Your task to perform on an android device: find snoozed emails in the gmail app Image 0: 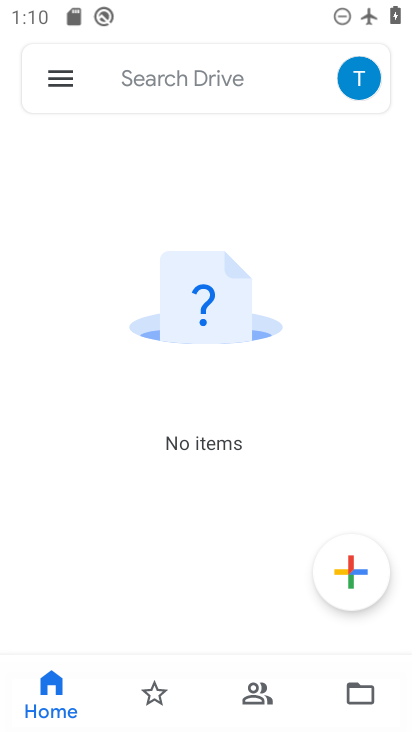
Step 0: press home button
Your task to perform on an android device: find snoozed emails in the gmail app Image 1: 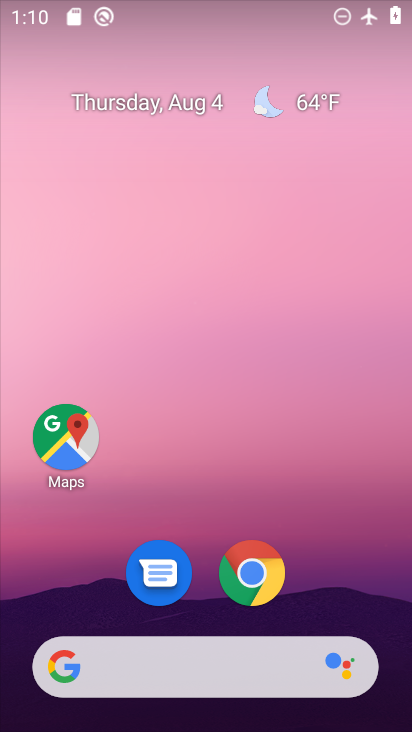
Step 1: drag from (348, 460) to (399, 108)
Your task to perform on an android device: find snoozed emails in the gmail app Image 2: 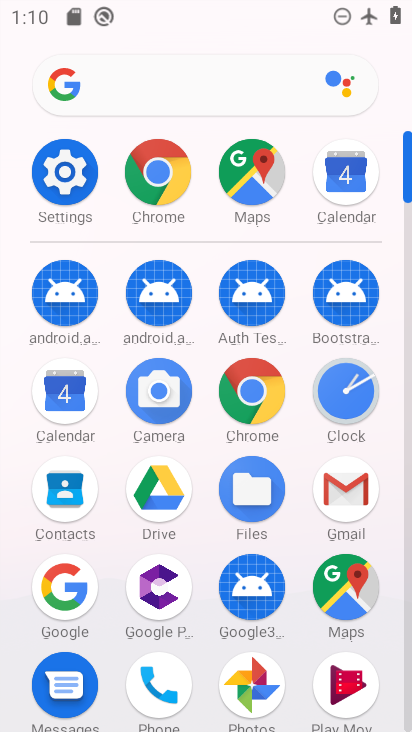
Step 2: click (337, 483)
Your task to perform on an android device: find snoozed emails in the gmail app Image 3: 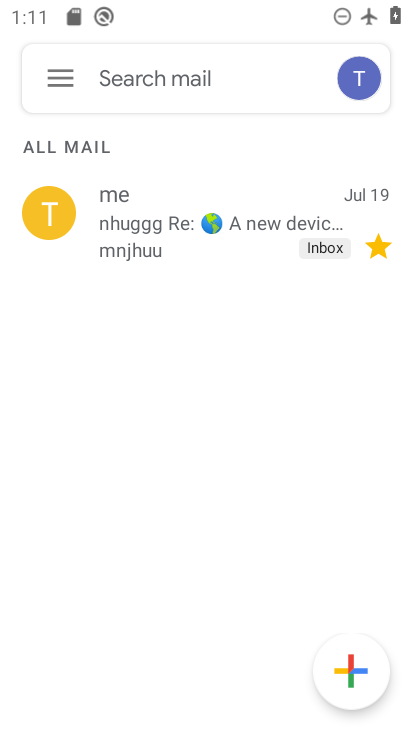
Step 3: click (63, 76)
Your task to perform on an android device: find snoozed emails in the gmail app Image 4: 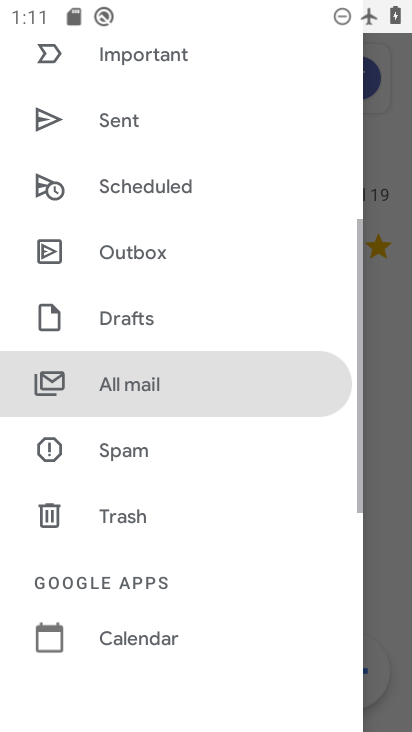
Step 4: drag from (150, 599) to (203, 194)
Your task to perform on an android device: find snoozed emails in the gmail app Image 5: 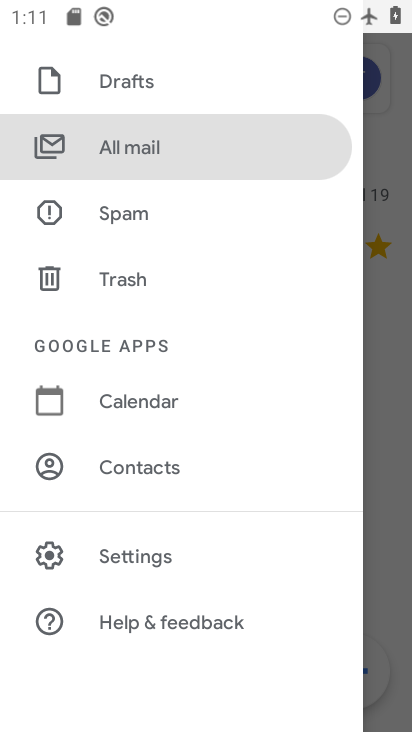
Step 5: drag from (164, 224) to (168, 537)
Your task to perform on an android device: find snoozed emails in the gmail app Image 6: 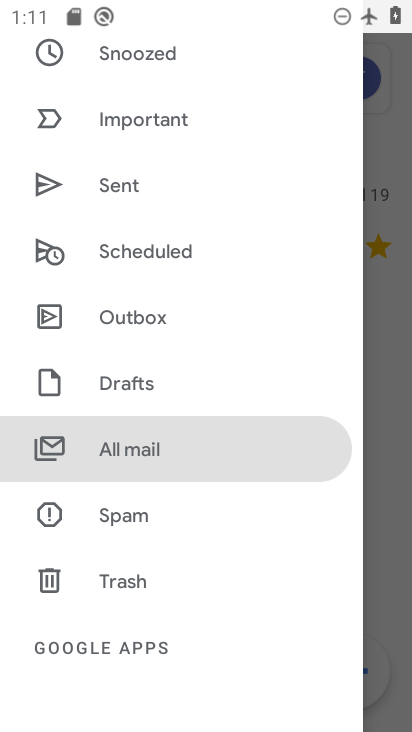
Step 6: drag from (132, 191) to (138, 438)
Your task to perform on an android device: find snoozed emails in the gmail app Image 7: 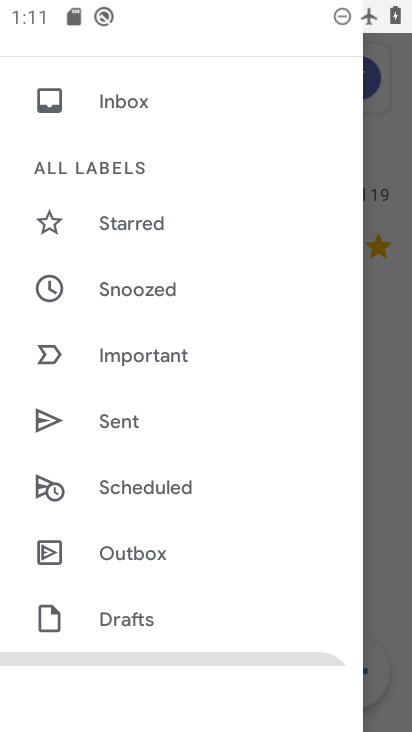
Step 7: click (127, 284)
Your task to perform on an android device: find snoozed emails in the gmail app Image 8: 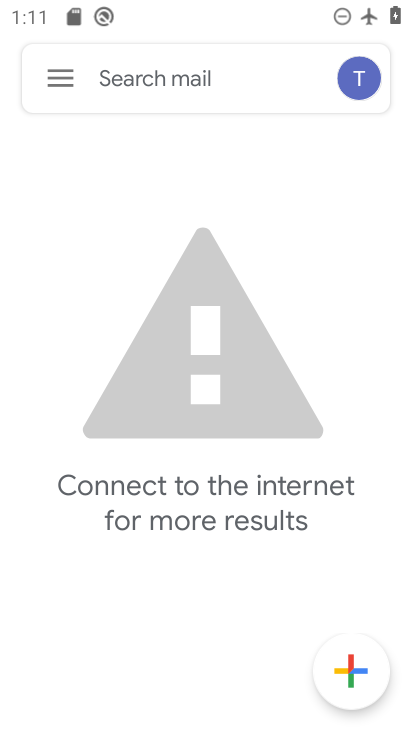
Step 8: task complete